Your task to perform on an android device: change text size in settings app Image 0: 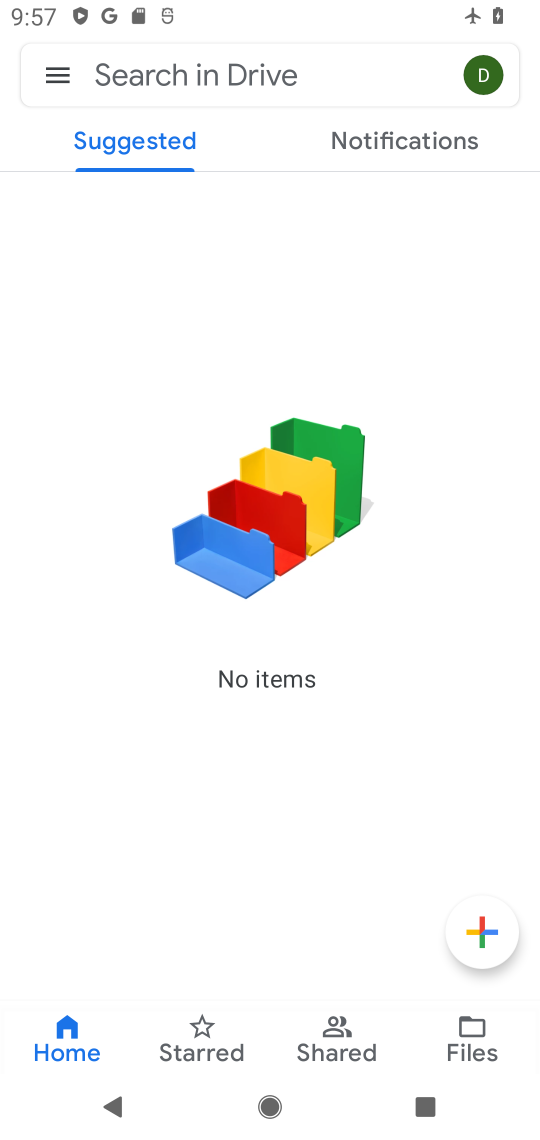
Step 0: press home button
Your task to perform on an android device: change text size in settings app Image 1: 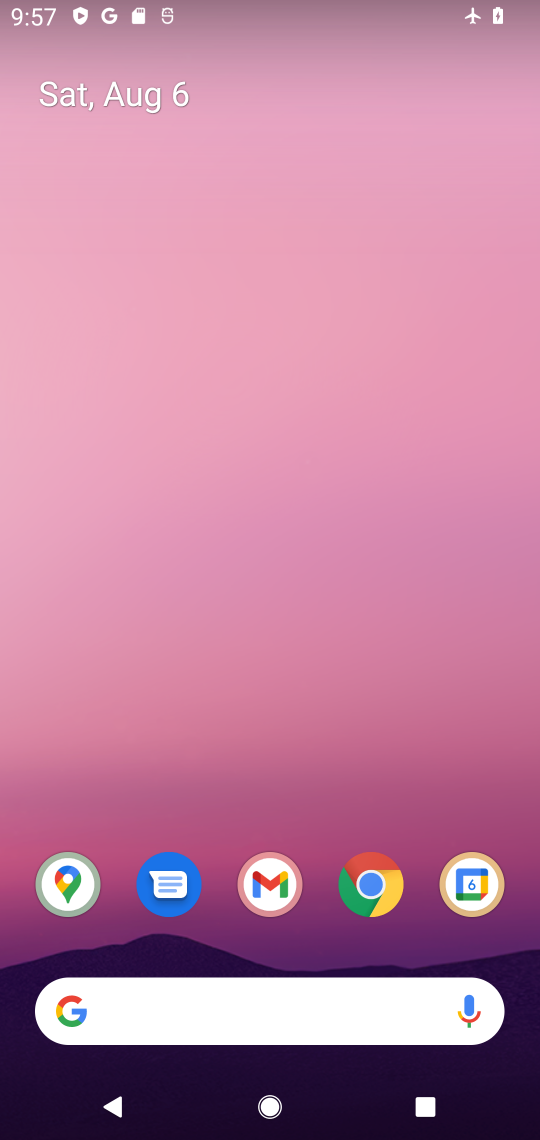
Step 1: drag from (418, 850) to (369, 327)
Your task to perform on an android device: change text size in settings app Image 2: 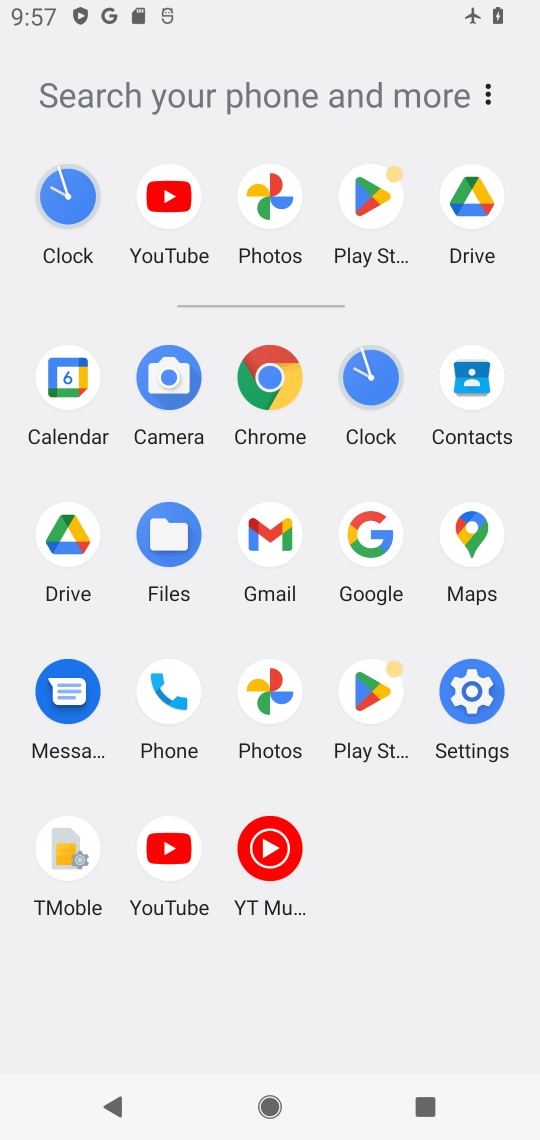
Step 2: click (473, 688)
Your task to perform on an android device: change text size in settings app Image 3: 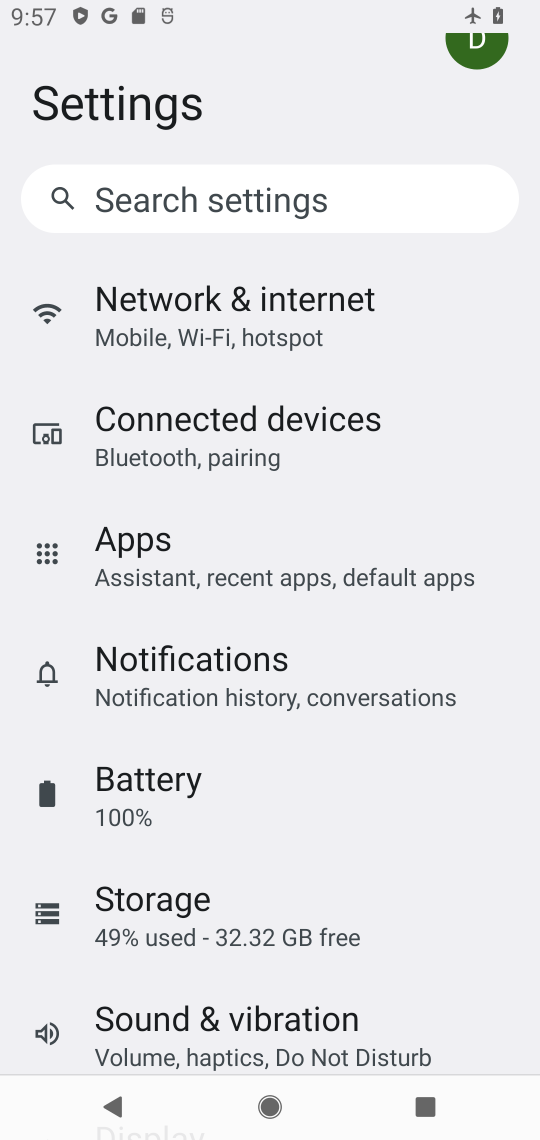
Step 3: drag from (366, 984) to (381, 527)
Your task to perform on an android device: change text size in settings app Image 4: 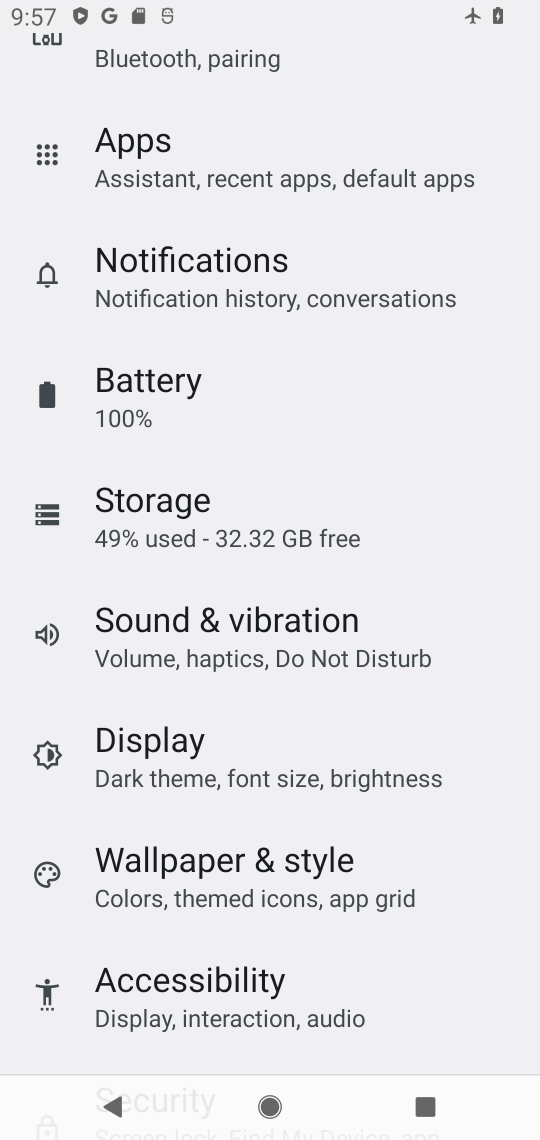
Step 4: click (178, 764)
Your task to perform on an android device: change text size in settings app Image 5: 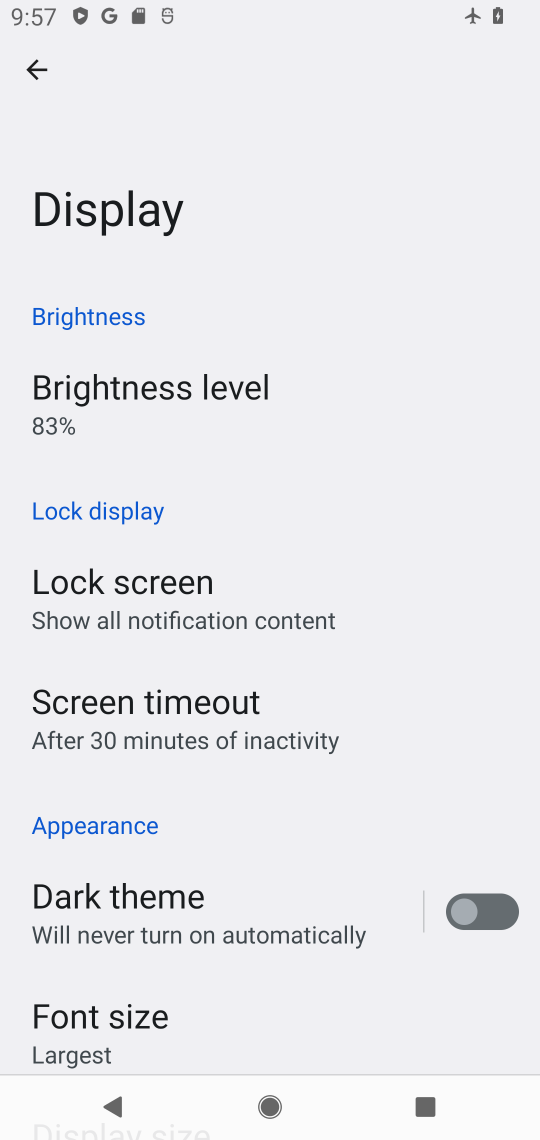
Step 5: drag from (322, 873) to (309, 375)
Your task to perform on an android device: change text size in settings app Image 6: 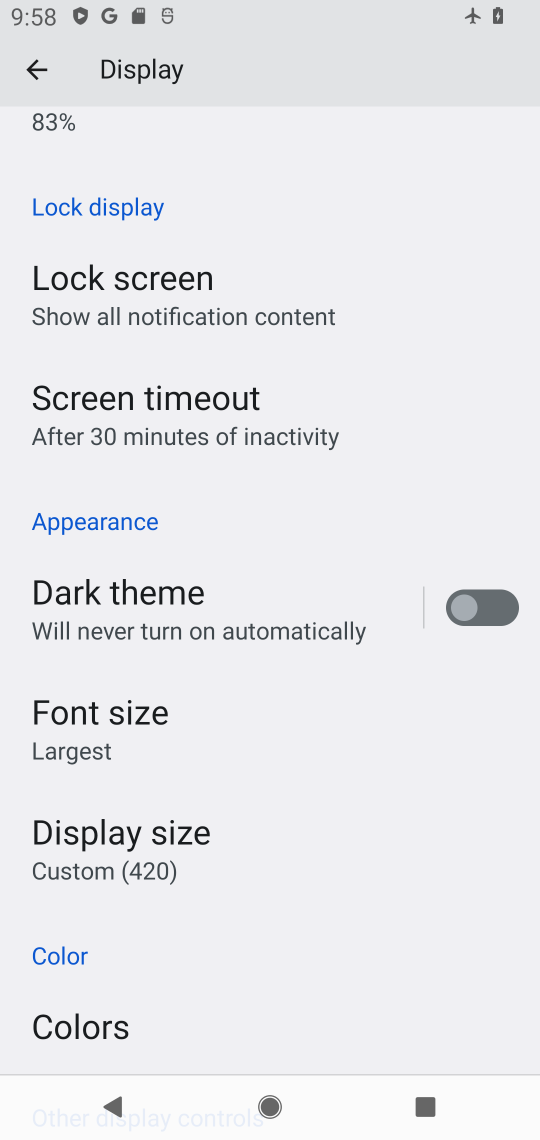
Step 6: click (70, 721)
Your task to perform on an android device: change text size in settings app Image 7: 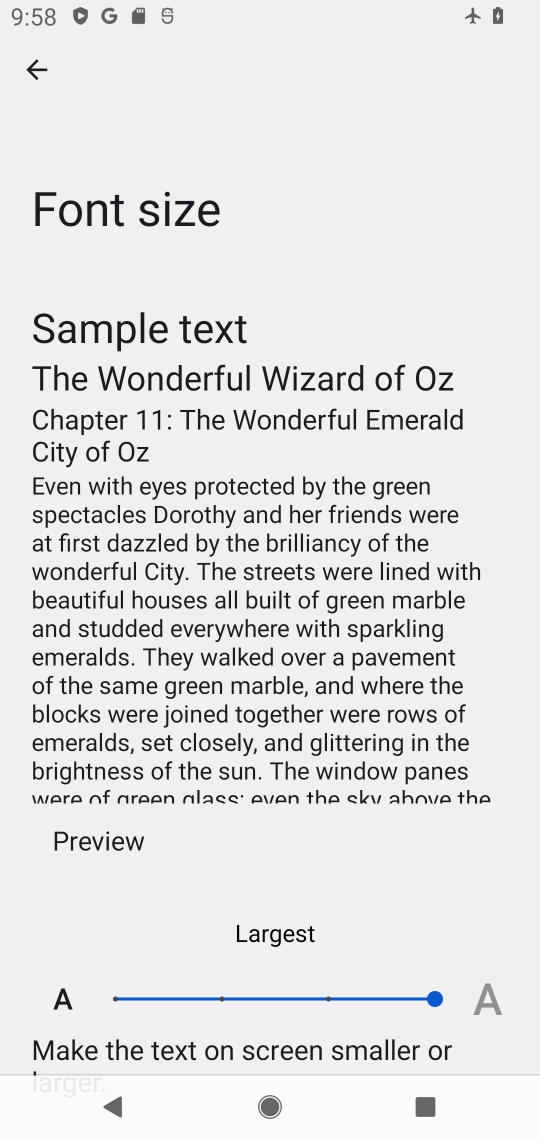
Step 7: click (332, 982)
Your task to perform on an android device: change text size in settings app Image 8: 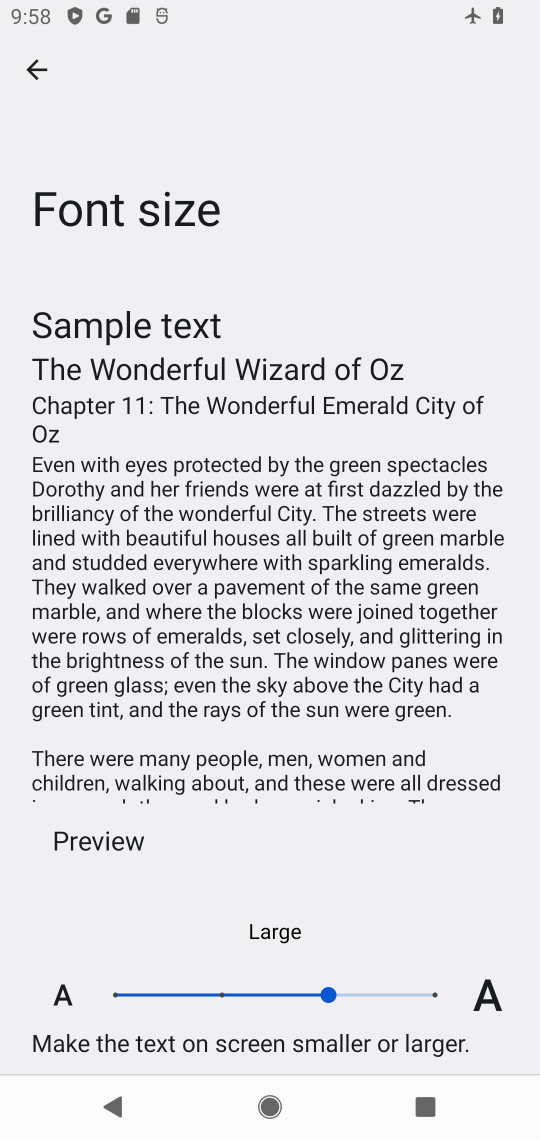
Step 8: task complete